Your task to perform on an android device: Open display settings Image 0: 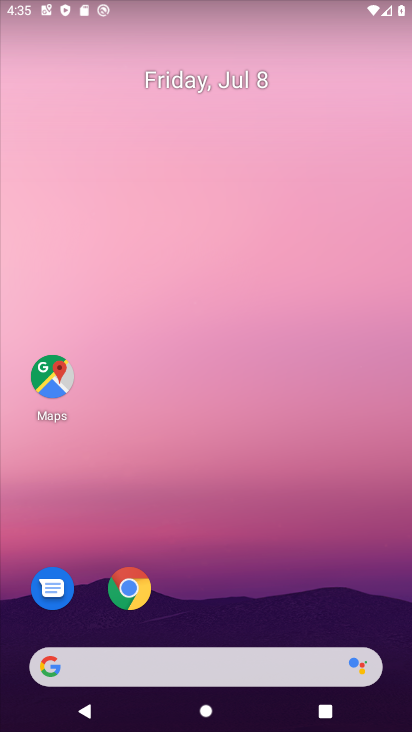
Step 0: drag from (232, 572) to (306, 18)
Your task to perform on an android device: Open display settings Image 1: 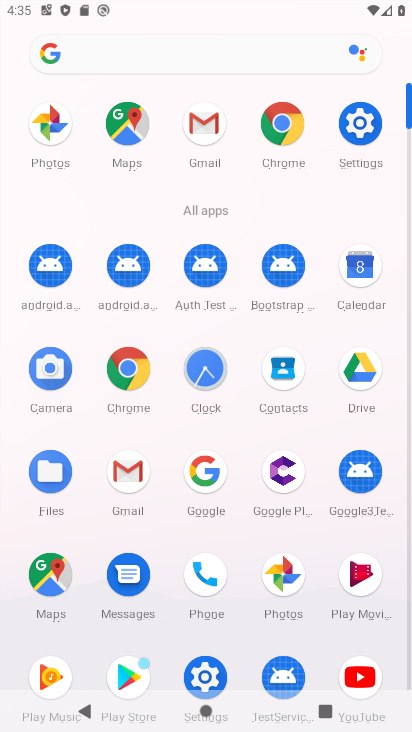
Step 1: click (365, 139)
Your task to perform on an android device: Open display settings Image 2: 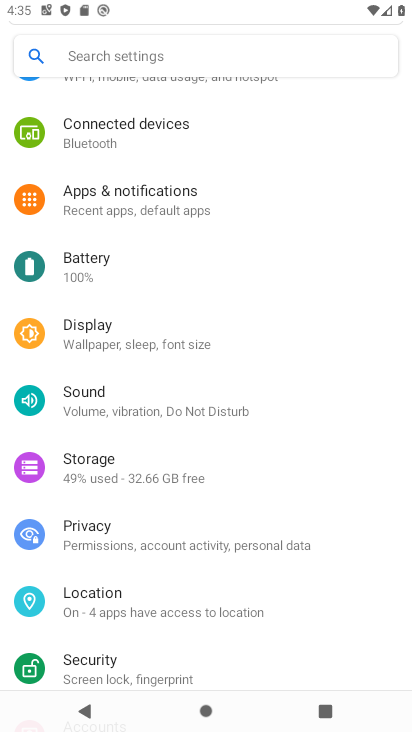
Step 2: click (100, 343)
Your task to perform on an android device: Open display settings Image 3: 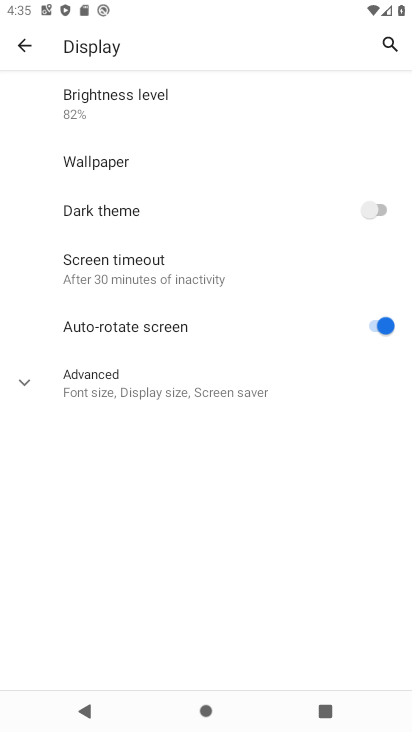
Step 3: task complete